Your task to perform on an android device: Open Google Chrome and open the bookmarks view Image 0: 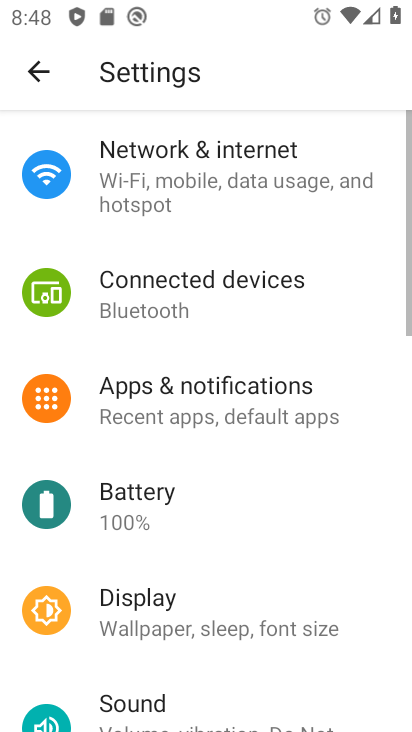
Step 0: press home button
Your task to perform on an android device: Open Google Chrome and open the bookmarks view Image 1: 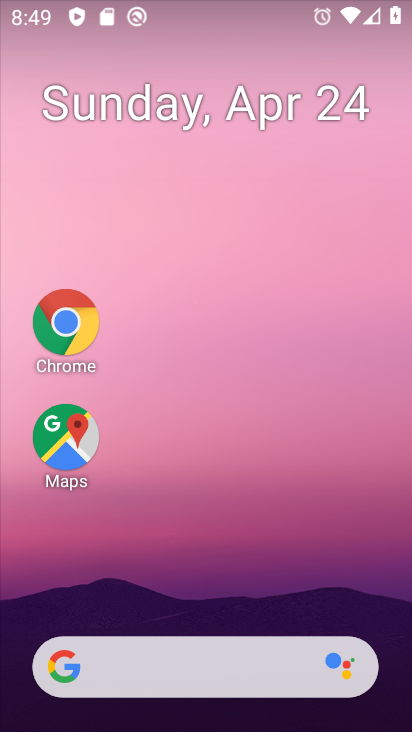
Step 1: click (66, 331)
Your task to perform on an android device: Open Google Chrome and open the bookmarks view Image 2: 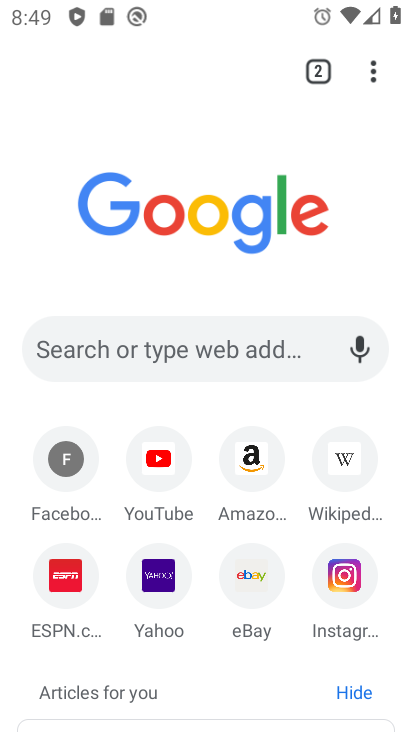
Step 2: click (370, 73)
Your task to perform on an android device: Open Google Chrome and open the bookmarks view Image 3: 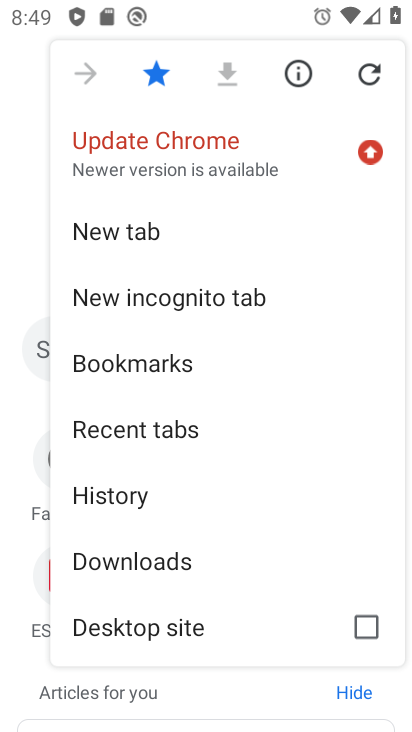
Step 3: click (143, 360)
Your task to perform on an android device: Open Google Chrome and open the bookmarks view Image 4: 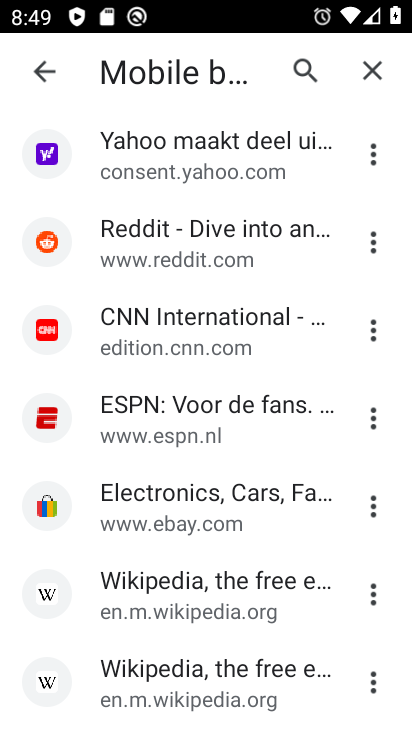
Step 4: click (370, 151)
Your task to perform on an android device: Open Google Chrome and open the bookmarks view Image 5: 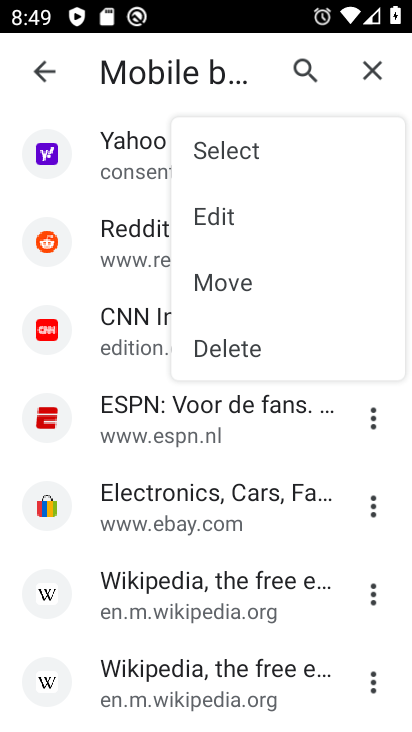
Step 5: click (215, 213)
Your task to perform on an android device: Open Google Chrome and open the bookmarks view Image 6: 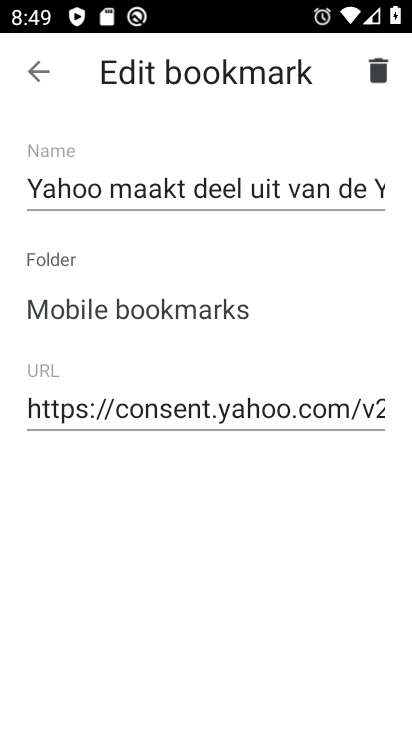
Step 6: task complete